Your task to perform on an android device: empty trash in google photos Image 0: 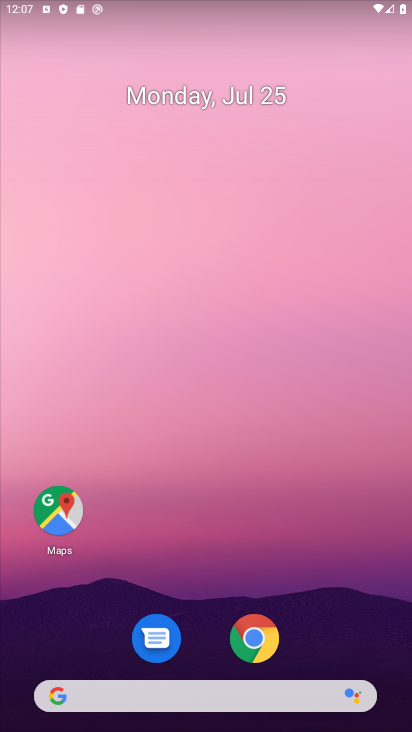
Step 0: drag from (202, 656) to (177, 19)
Your task to perform on an android device: empty trash in google photos Image 1: 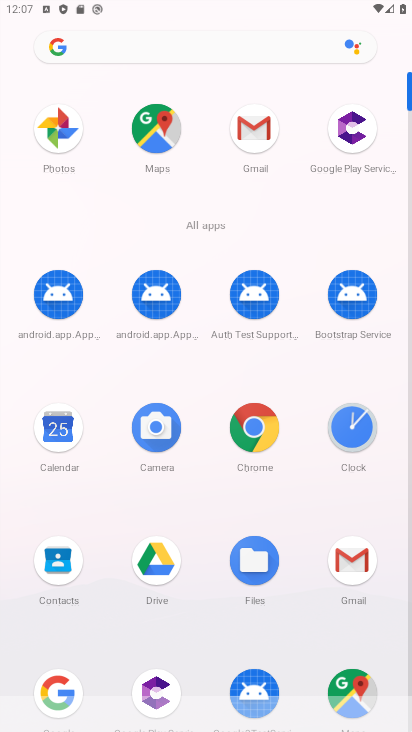
Step 1: click (70, 149)
Your task to perform on an android device: empty trash in google photos Image 2: 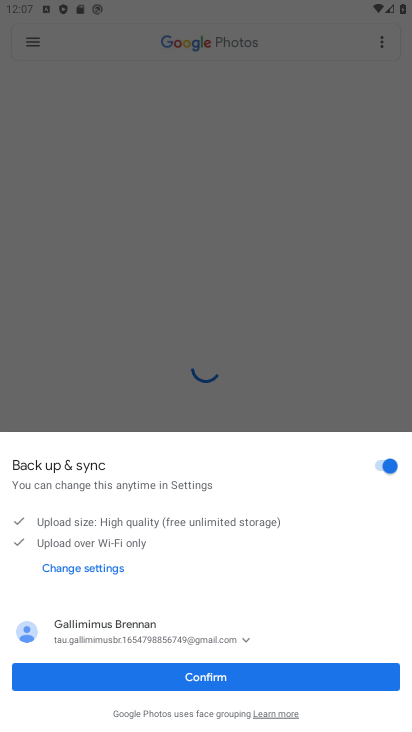
Step 2: click (28, 51)
Your task to perform on an android device: empty trash in google photos Image 3: 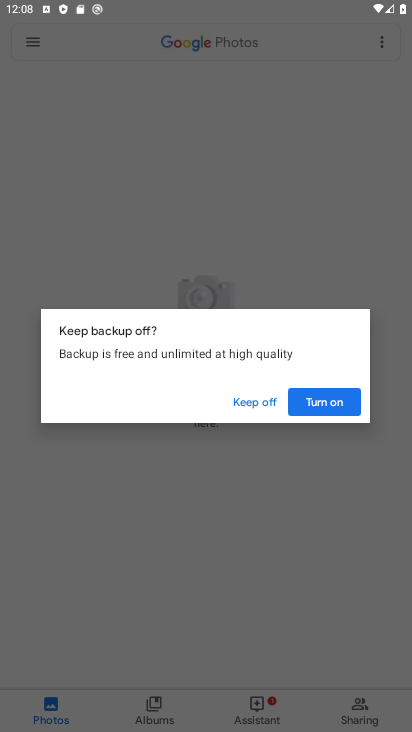
Step 3: click (346, 400)
Your task to perform on an android device: empty trash in google photos Image 4: 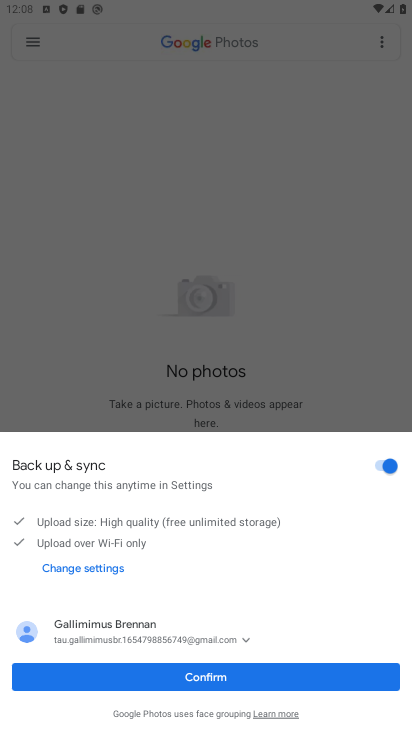
Step 4: click (105, 667)
Your task to perform on an android device: empty trash in google photos Image 5: 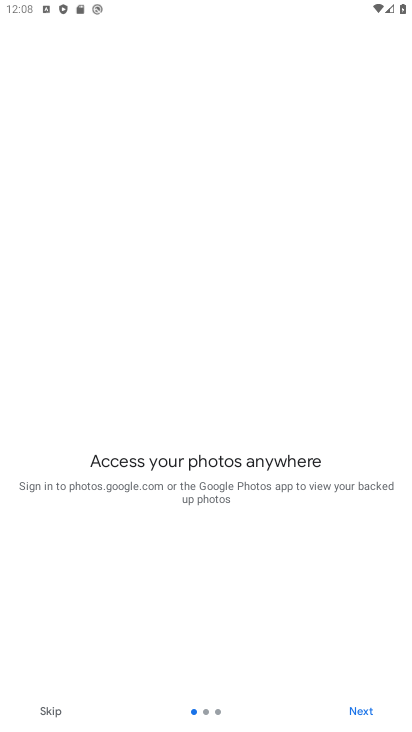
Step 5: click (363, 711)
Your task to perform on an android device: empty trash in google photos Image 6: 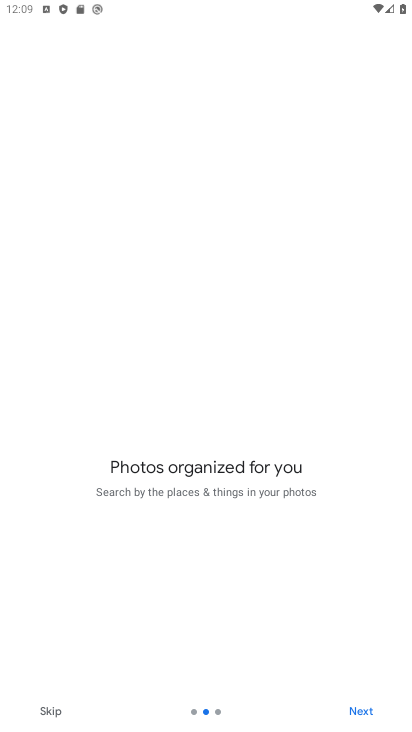
Step 6: click (363, 707)
Your task to perform on an android device: empty trash in google photos Image 7: 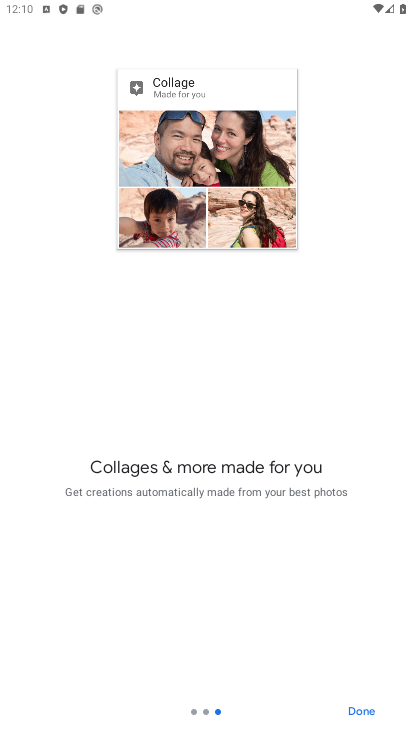
Step 7: click (362, 723)
Your task to perform on an android device: empty trash in google photos Image 8: 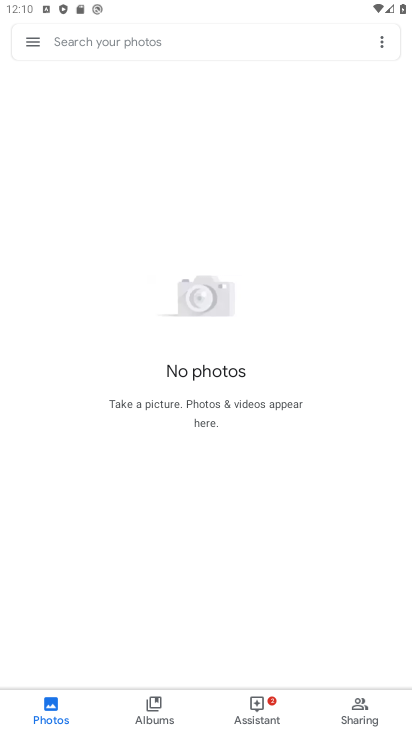
Step 8: click (36, 48)
Your task to perform on an android device: empty trash in google photos Image 9: 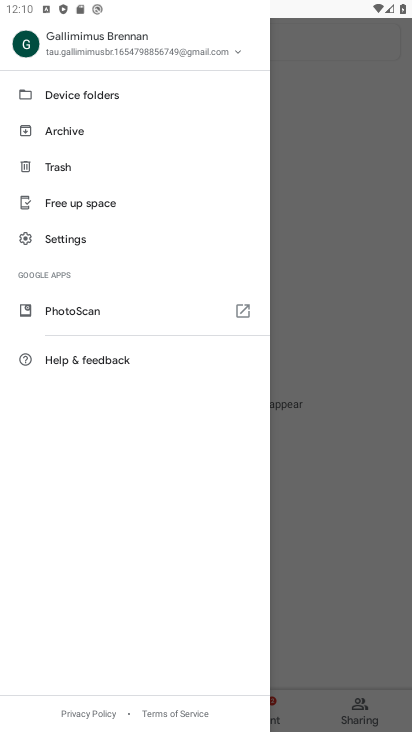
Step 9: click (61, 162)
Your task to perform on an android device: empty trash in google photos Image 10: 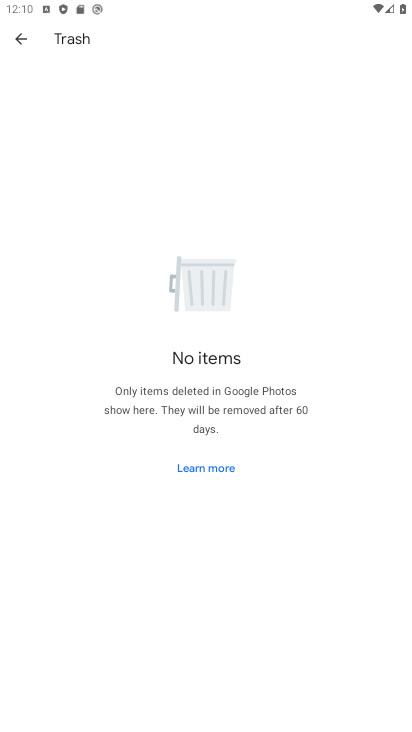
Step 10: task complete